Your task to perform on an android device: Do I have any events tomorrow? Image 0: 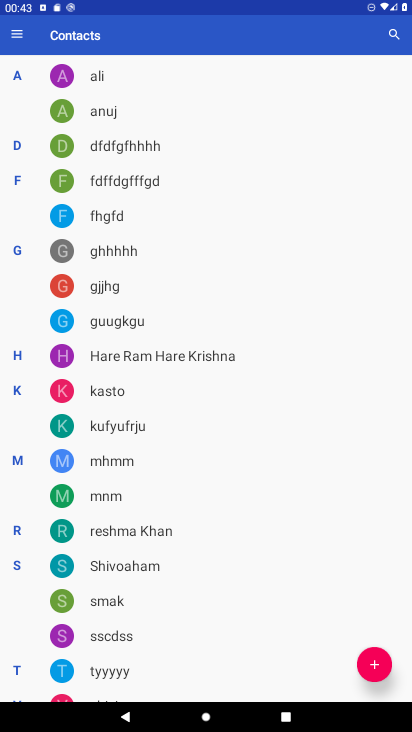
Step 0: press home button
Your task to perform on an android device: Do I have any events tomorrow? Image 1: 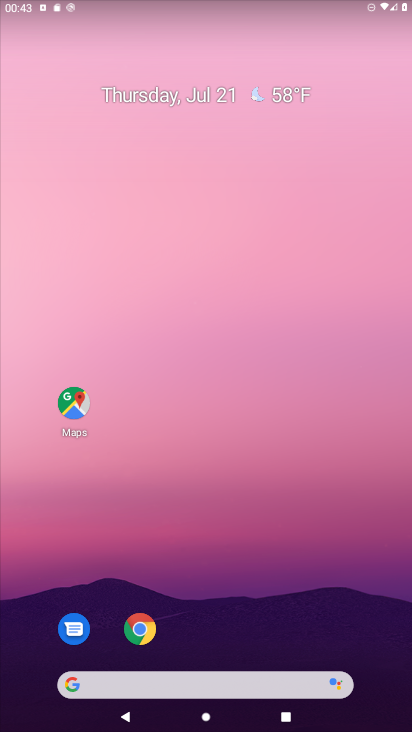
Step 1: drag from (229, 586) to (233, 183)
Your task to perform on an android device: Do I have any events tomorrow? Image 2: 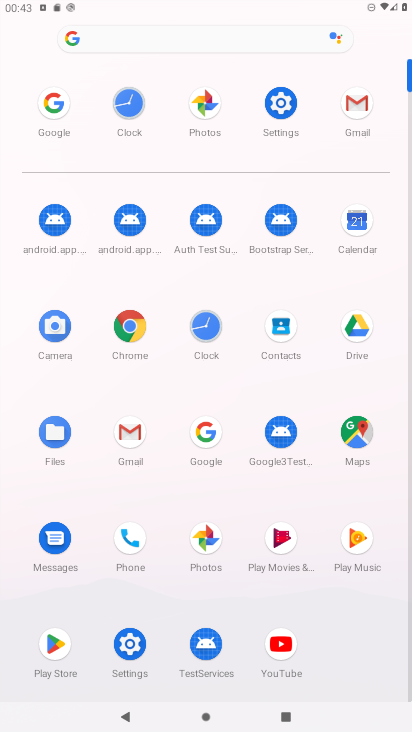
Step 2: click (358, 238)
Your task to perform on an android device: Do I have any events tomorrow? Image 3: 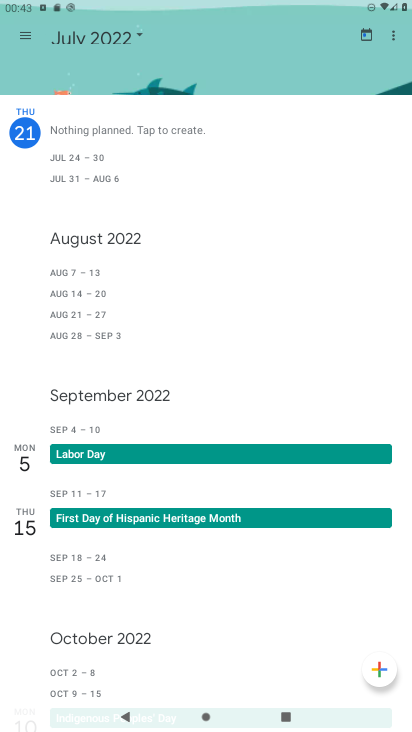
Step 3: click (145, 32)
Your task to perform on an android device: Do I have any events tomorrow? Image 4: 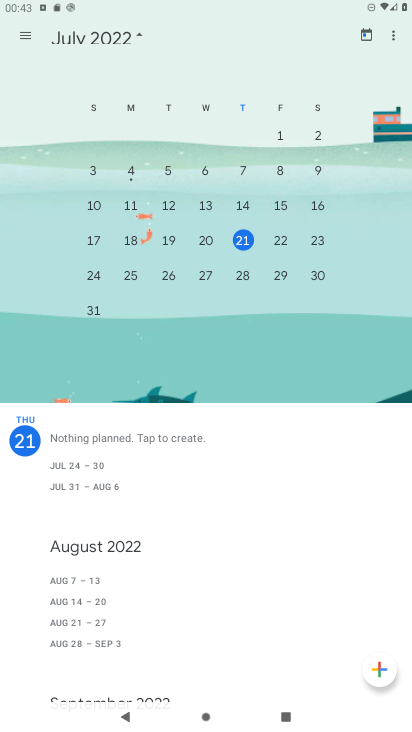
Step 4: click (287, 238)
Your task to perform on an android device: Do I have any events tomorrow? Image 5: 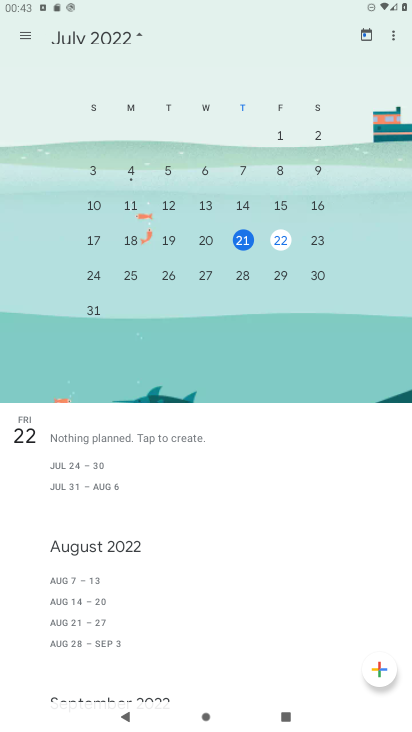
Step 5: task complete